Your task to perform on an android device: allow cookies in the chrome app Image 0: 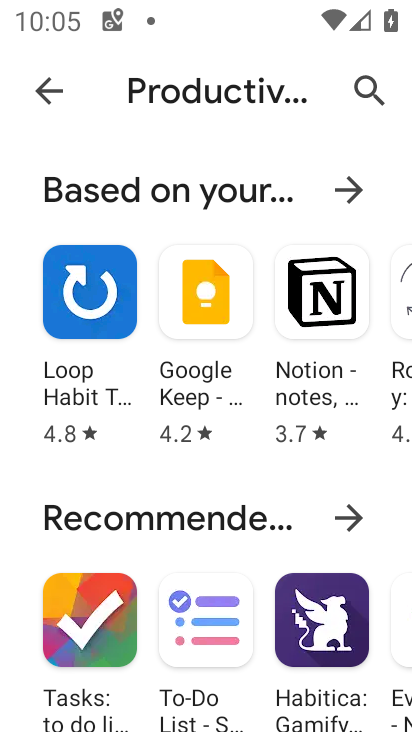
Step 0: press home button
Your task to perform on an android device: allow cookies in the chrome app Image 1: 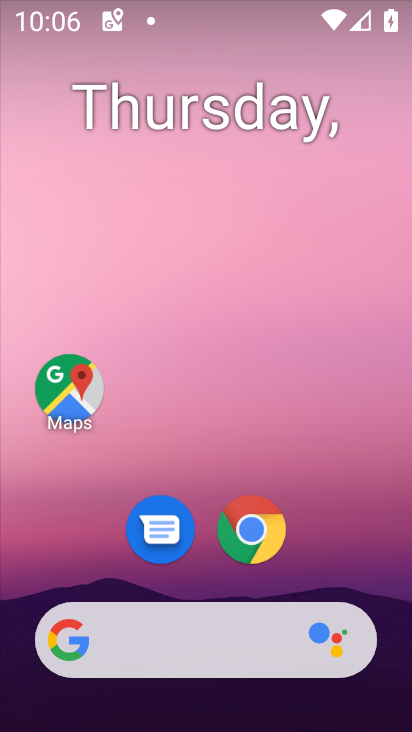
Step 1: click (273, 532)
Your task to perform on an android device: allow cookies in the chrome app Image 2: 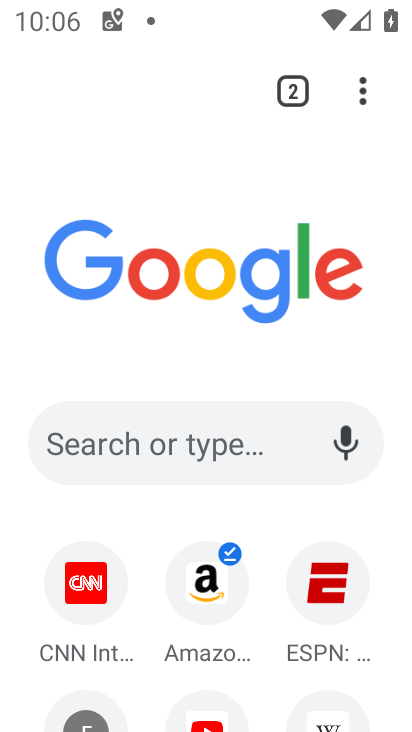
Step 2: click (356, 90)
Your task to perform on an android device: allow cookies in the chrome app Image 3: 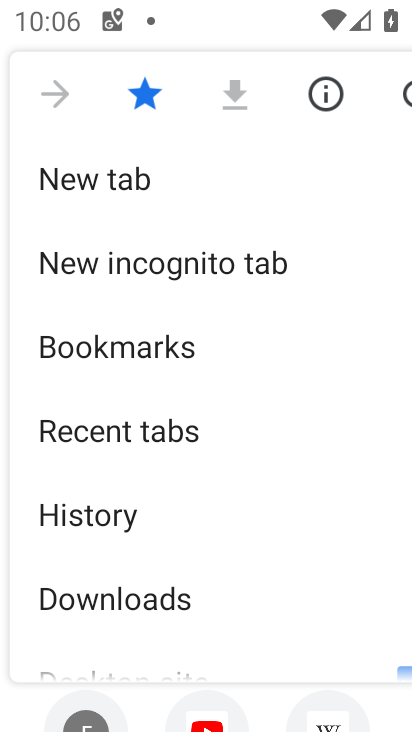
Step 3: drag from (254, 604) to (279, 0)
Your task to perform on an android device: allow cookies in the chrome app Image 4: 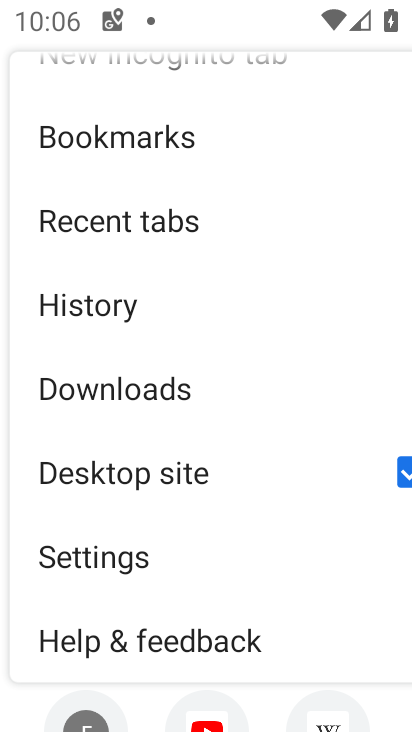
Step 4: click (74, 575)
Your task to perform on an android device: allow cookies in the chrome app Image 5: 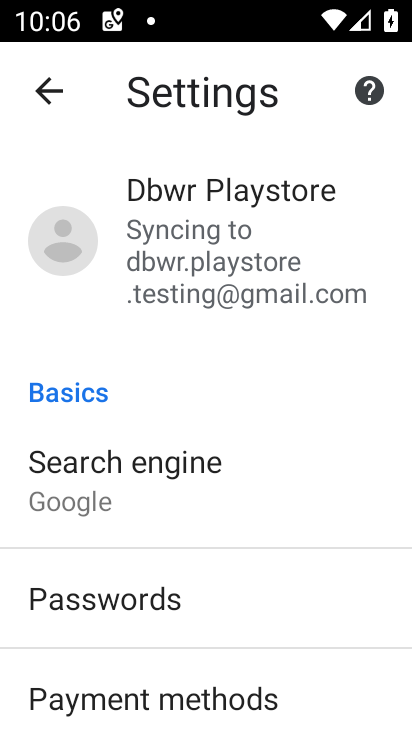
Step 5: drag from (257, 614) to (283, 71)
Your task to perform on an android device: allow cookies in the chrome app Image 6: 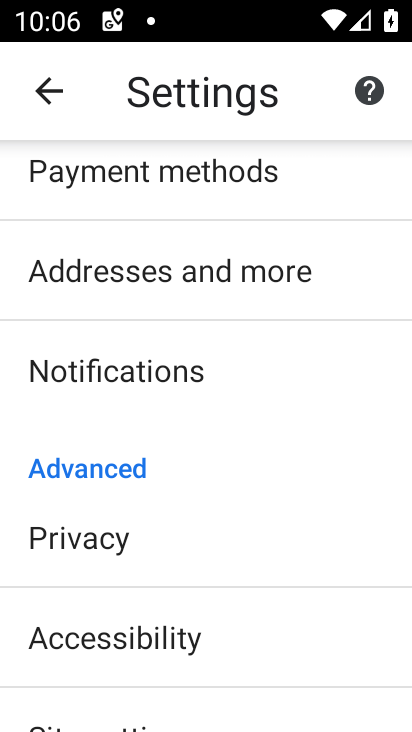
Step 6: drag from (232, 643) to (255, 163)
Your task to perform on an android device: allow cookies in the chrome app Image 7: 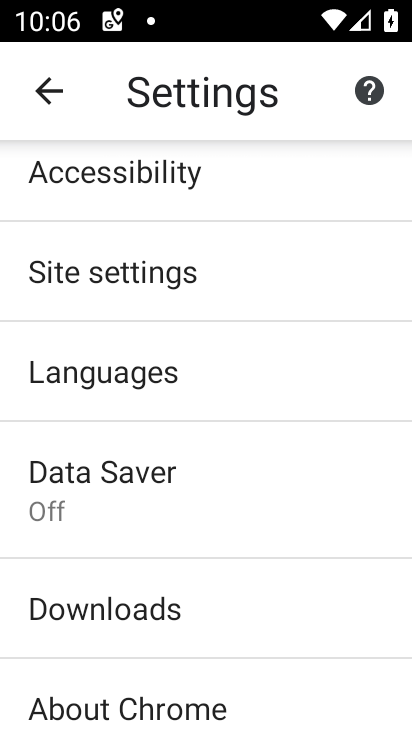
Step 7: click (155, 270)
Your task to perform on an android device: allow cookies in the chrome app Image 8: 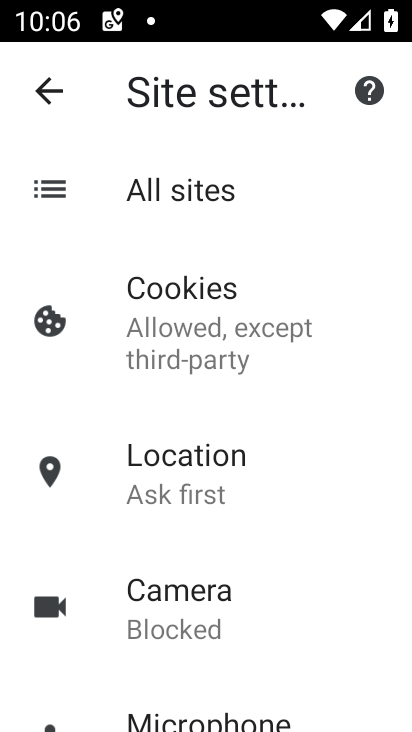
Step 8: click (219, 362)
Your task to perform on an android device: allow cookies in the chrome app Image 9: 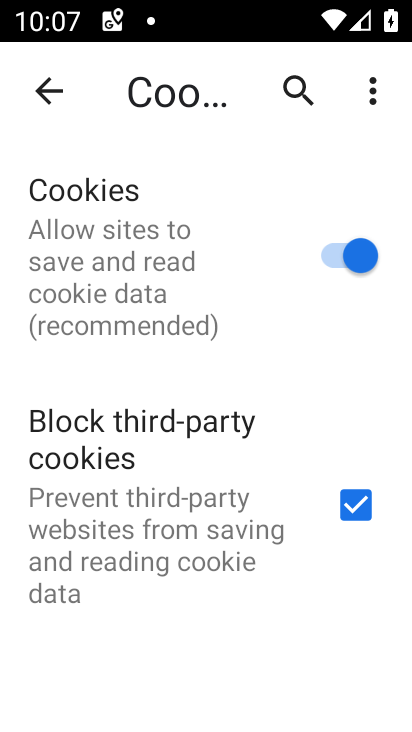
Step 9: task complete